Your task to perform on an android device: toggle notifications settings in the gmail app Image 0: 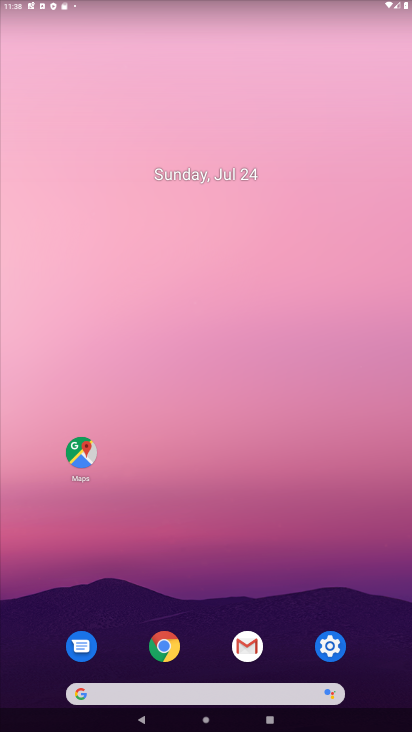
Step 0: click (255, 626)
Your task to perform on an android device: toggle notifications settings in the gmail app Image 1: 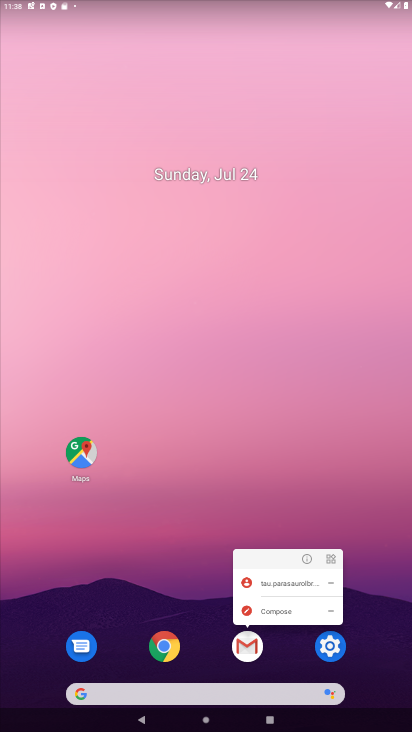
Step 1: click (248, 645)
Your task to perform on an android device: toggle notifications settings in the gmail app Image 2: 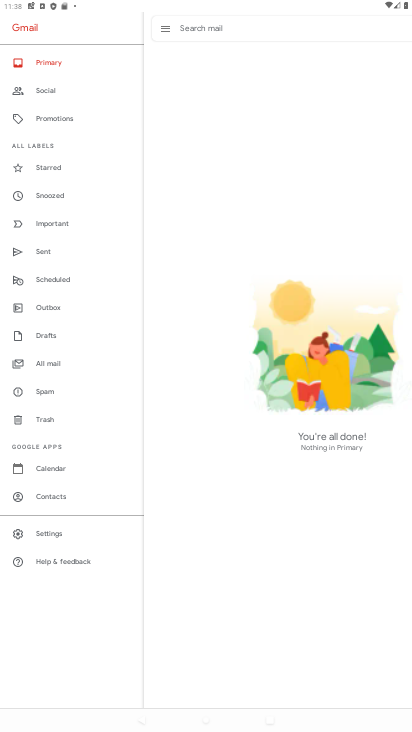
Step 2: click (49, 534)
Your task to perform on an android device: toggle notifications settings in the gmail app Image 3: 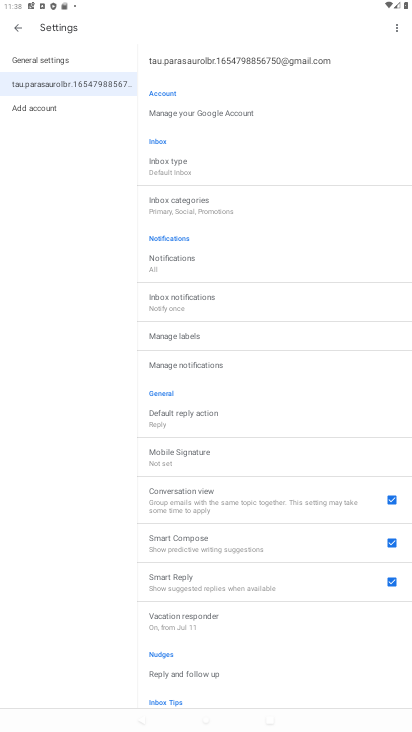
Step 3: click (170, 261)
Your task to perform on an android device: toggle notifications settings in the gmail app Image 4: 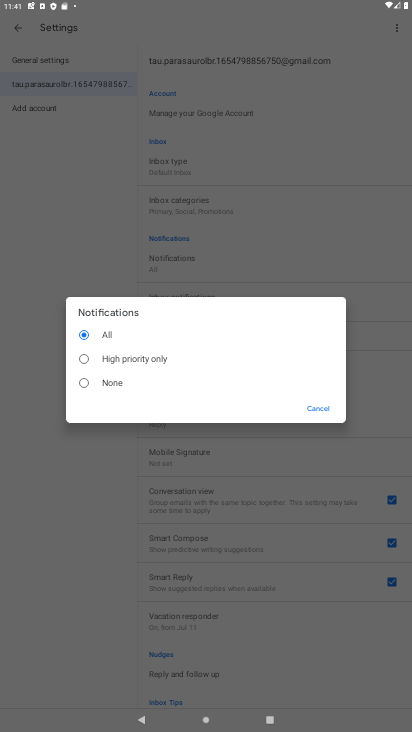
Step 4: task complete